Your task to perform on an android device: Go to battery settings Image 0: 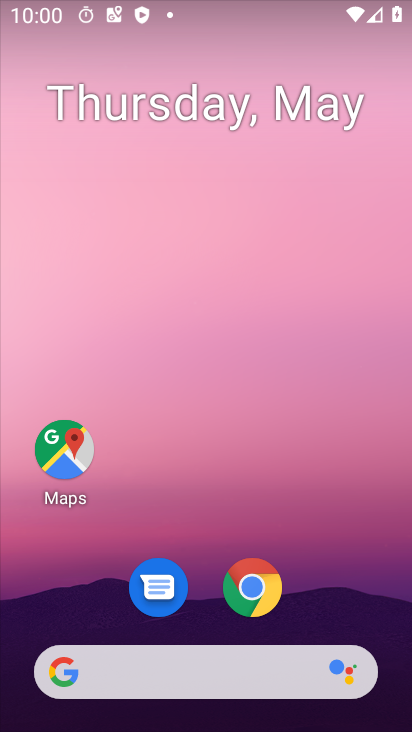
Step 0: drag from (340, 605) to (232, 16)
Your task to perform on an android device: Go to battery settings Image 1: 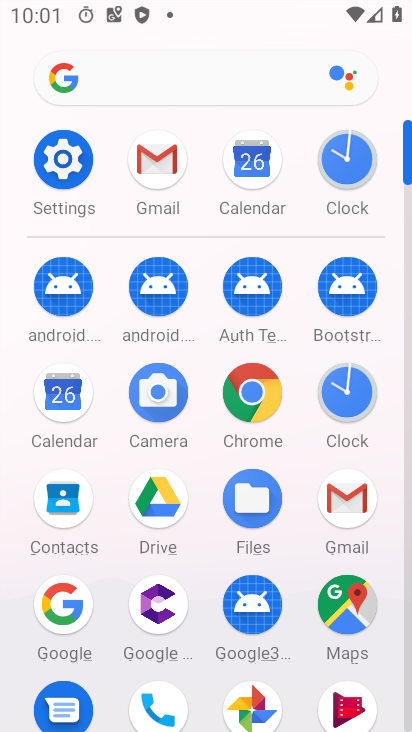
Step 1: click (63, 157)
Your task to perform on an android device: Go to battery settings Image 2: 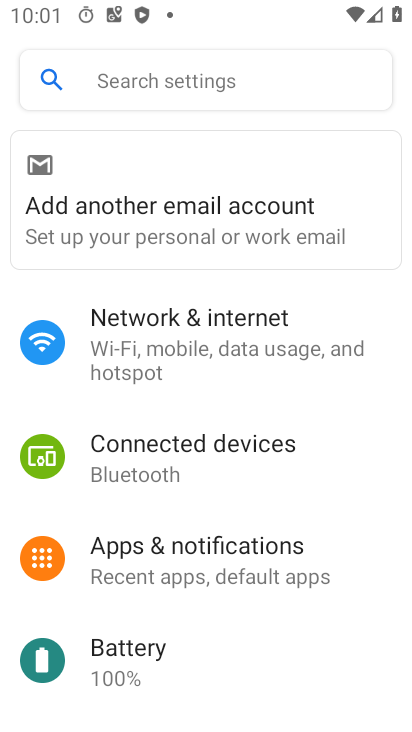
Step 2: drag from (366, 558) to (361, 358)
Your task to perform on an android device: Go to battery settings Image 3: 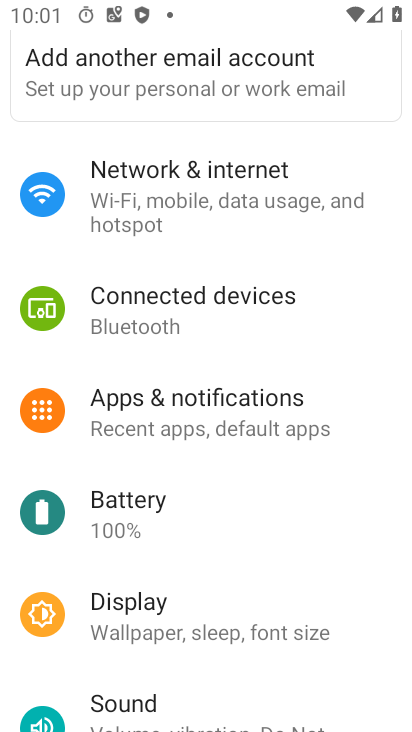
Step 3: click (132, 511)
Your task to perform on an android device: Go to battery settings Image 4: 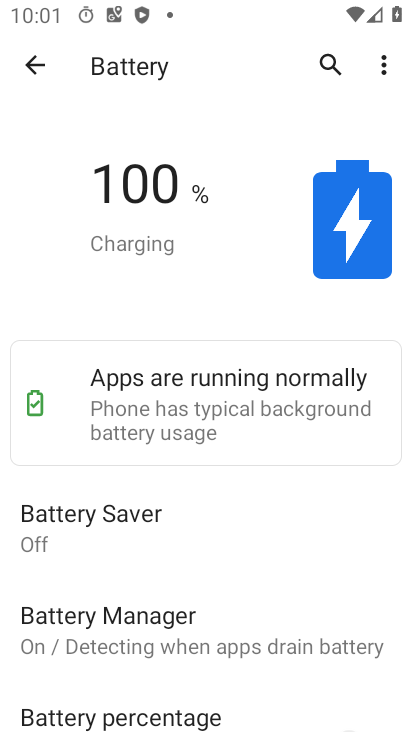
Step 4: task complete